Your task to perform on an android device: create a new album in the google photos Image 0: 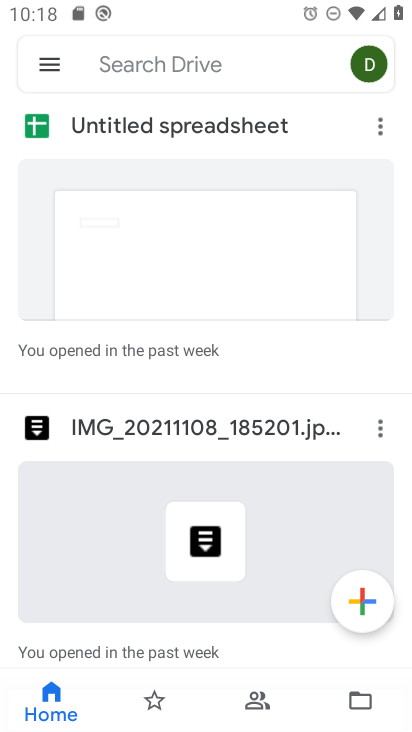
Step 0: press home button
Your task to perform on an android device: create a new album in the google photos Image 1: 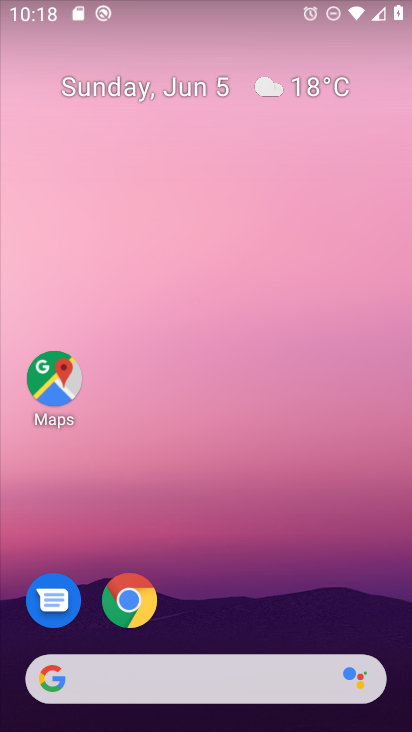
Step 1: drag from (229, 548) to (254, 46)
Your task to perform on an android device: create a new album in the google photos Image 2: 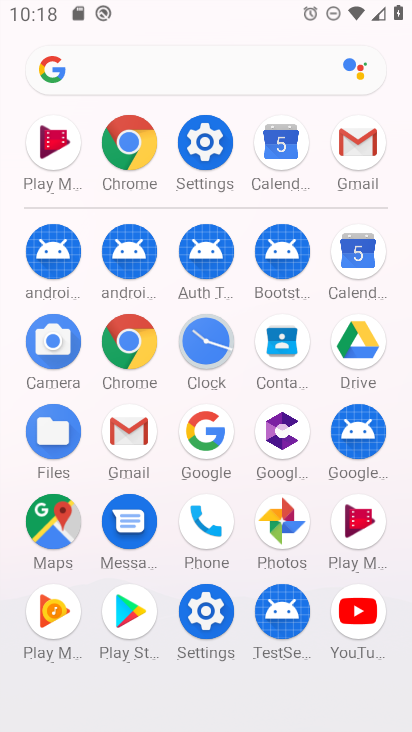
Step 2: click (290, 506)
Your task to perform on an android device: create a new album in the google photos Image 3: 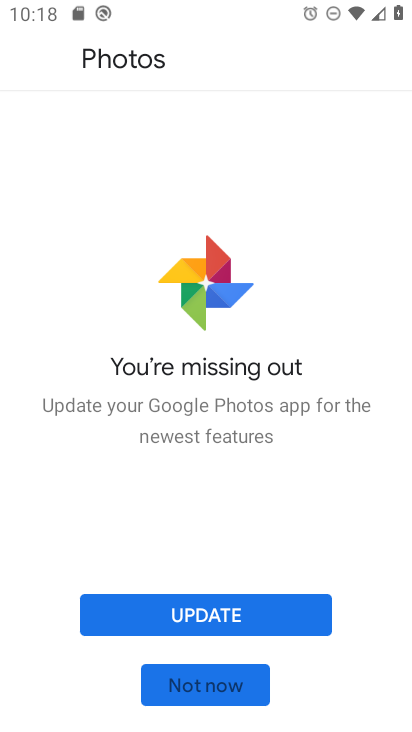
Step 3: click (231, 684)
Your task to perform on an android device: create a new album in the google photos Image 4: 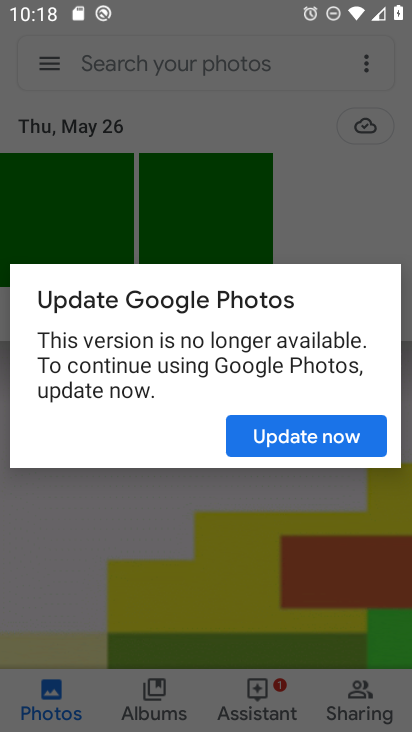
Step 4: click (354, 427)
Your task to perform on an android device: create a new album in the google photos Image 5: 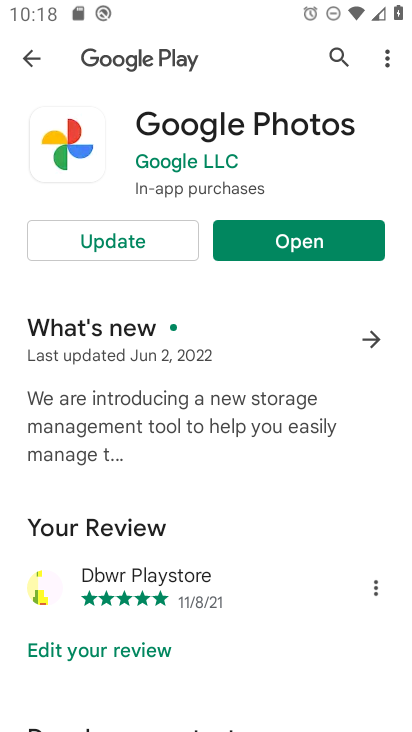
Step 5: click (303, 235)
Your task to perform on an android device: create a new album in the google photos Image 6: 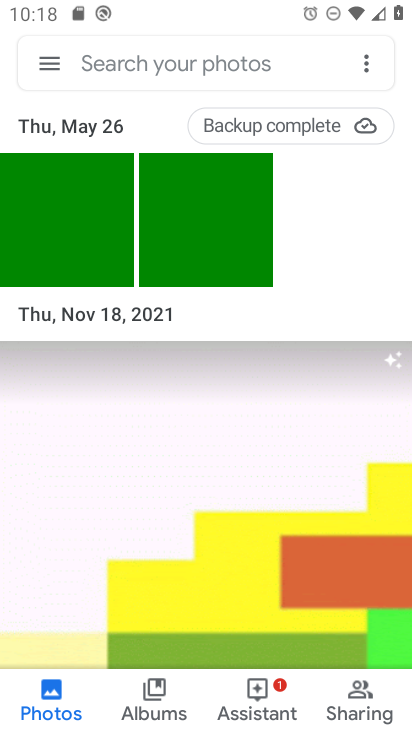
Step 6: click (163, 692)
Your task to perform on an android device: create a new album in the google photos Image 7: 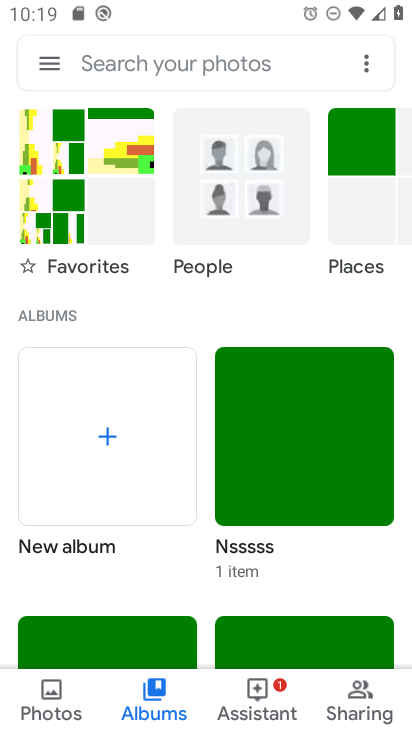
Step 7: click (103, 435)
Your task to perform on an android device: create a new album in the google photos Image 8: 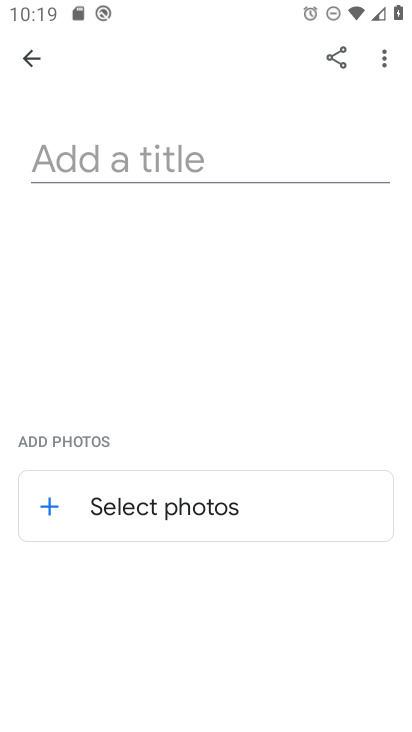
Step 8: click (224, 161)
Your task to perform on an android device: create a new album in the google photos Image 9: 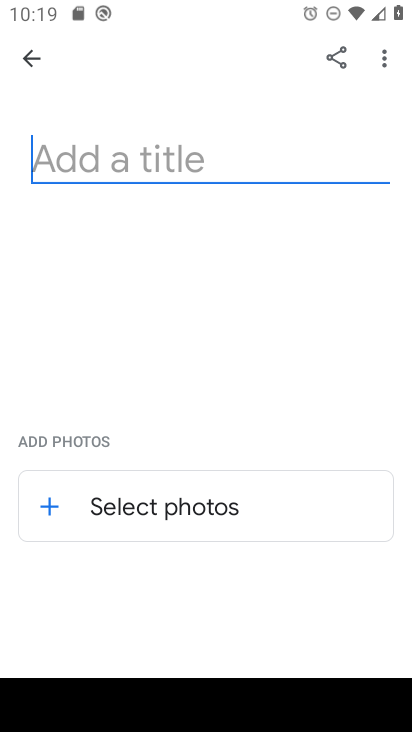
Step 9: type "Janmashtami "
Your task to perform on an android device: create a new album in the google photos Image 10: 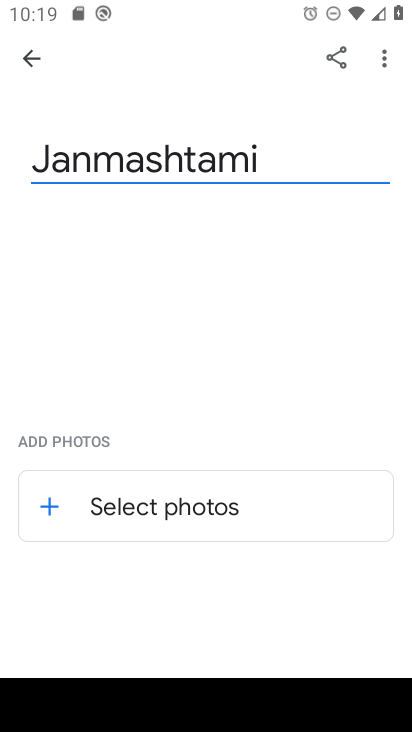
Step 10: click (54, 510)
Your task to perform on an android device: create a new album in the google photos Image 11: 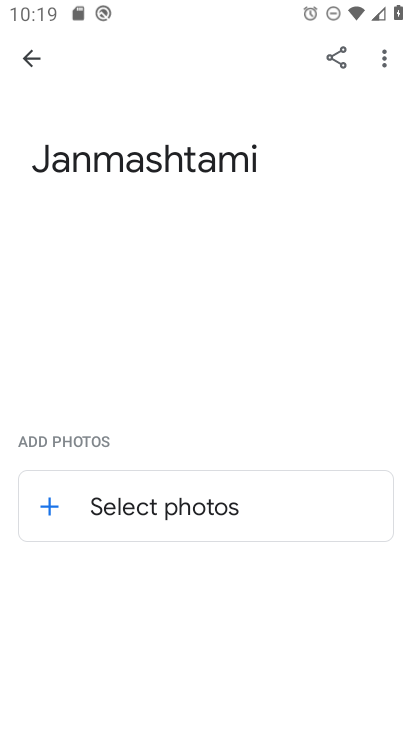
Step 11: click (46, 499)
Your task to perform on an android device: create a new album in the google photos Image 12: 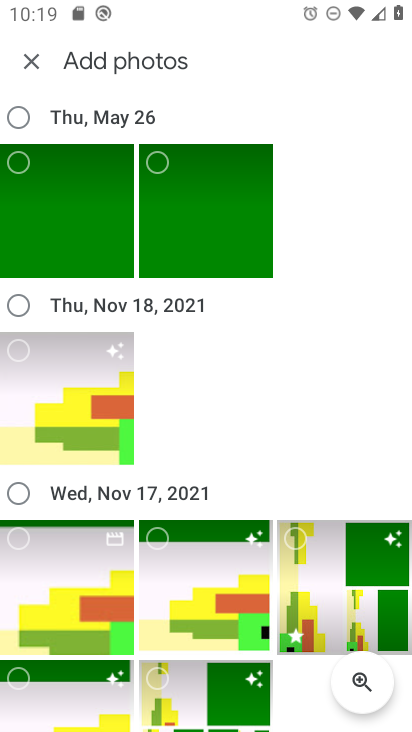
Step 12: click (15, 532)
Your task to perform on an android device: create a new album in the google photos Image 13: 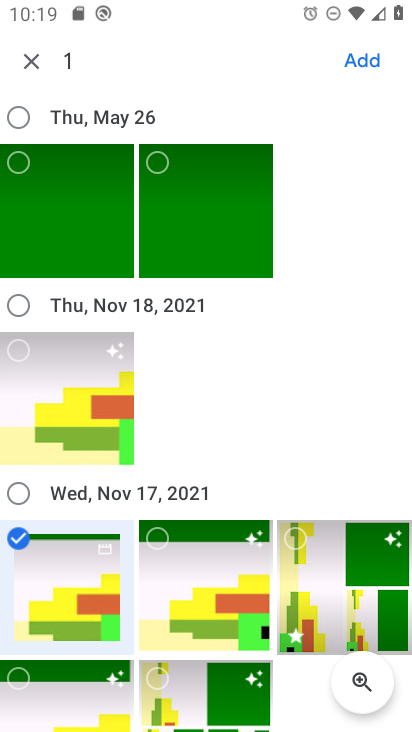
Step 13: click (15, 489)
Your task to perform on an android device: create a new album in the google photos Image 14: 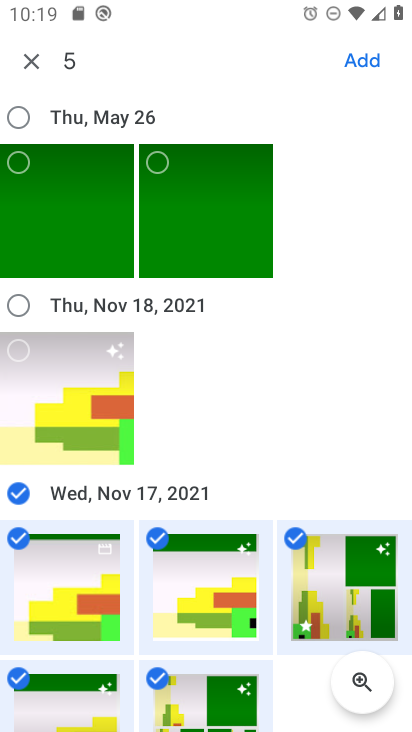
Step 14: click (351, 56)
Your task to perform on an android device: create a new album in the google photos Image 15: 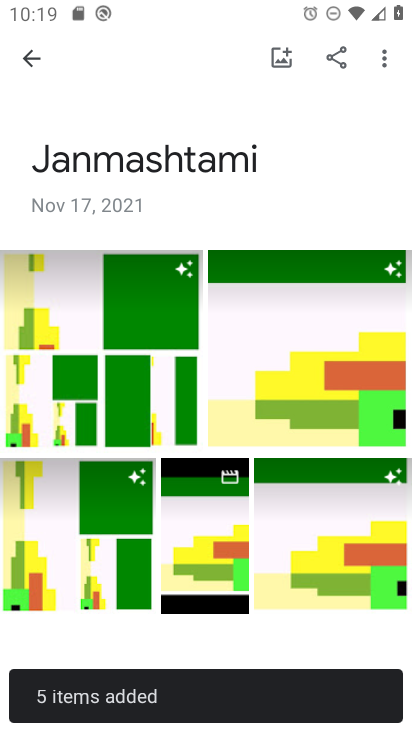
Step 15: task complete